Your task to perform on an android device: Open Yahoo.com Image 0: 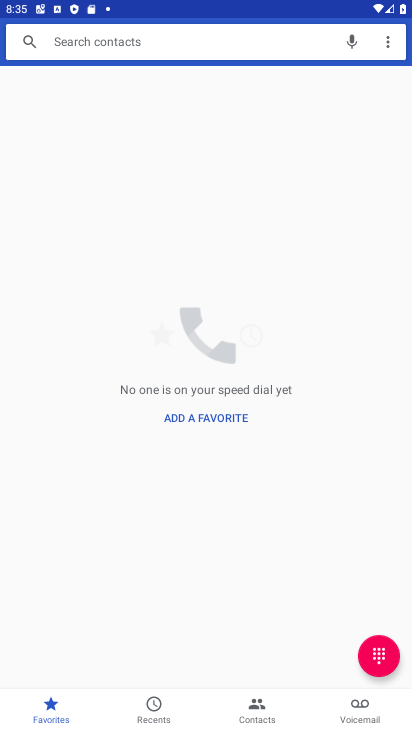
Step 0: press home button
Your task to perform on an android device: Open Yahoo.com Image 1: 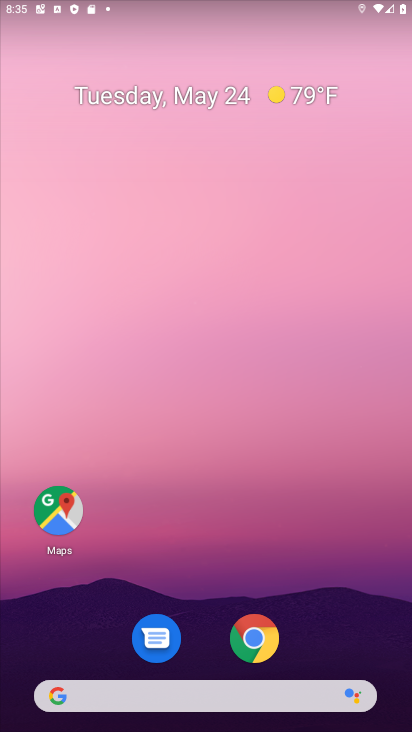
Step 1: click (146, 706)
Your task to perform on an android device: Open Yahoo.com Image 2: 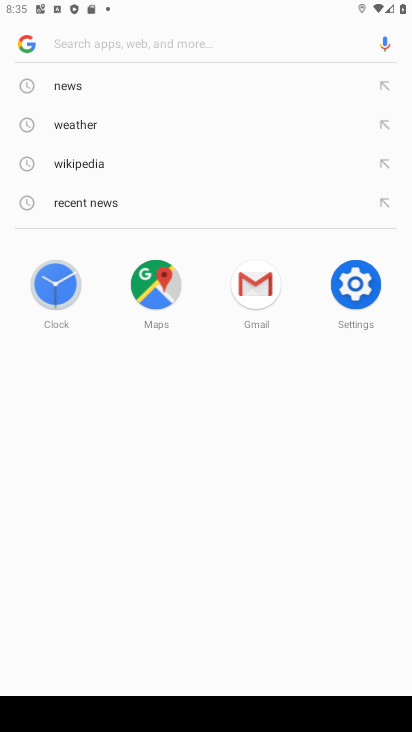
Step 2: type "y"
Your task to perform on an android device: Open Yahoo.com Image 3: 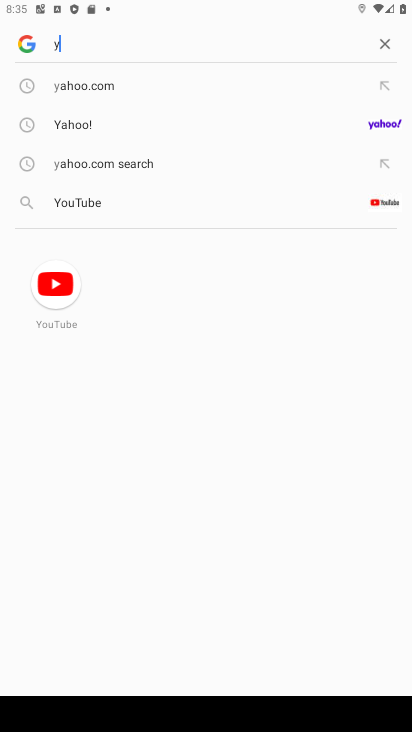
Step 3: click (191, 125)
Your task to perform on an android device: Open Yahoo.com Image 4: 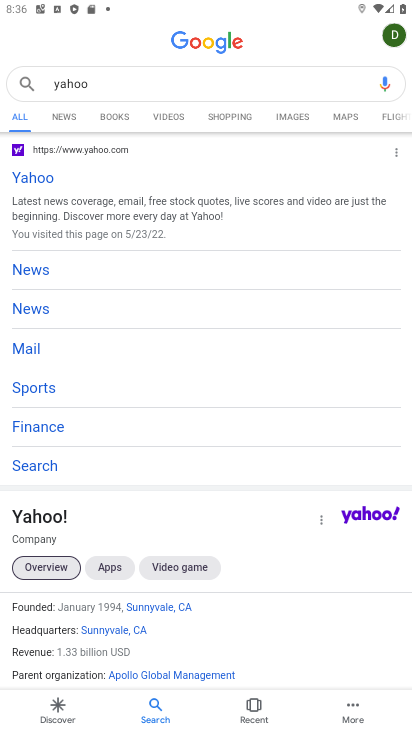
Step 4: click (128, 153)
Your task to perform on an android device: Open Yahoo.com Image 5: 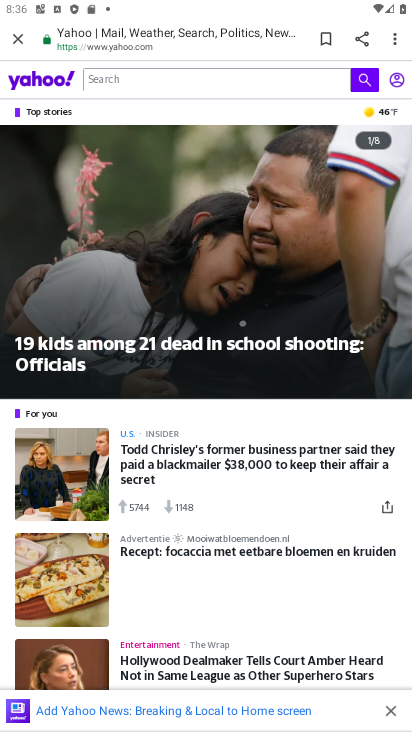
Step 5: task complete